Your task to perform on an android device: stop showing notifications on the lock screen Image 0: 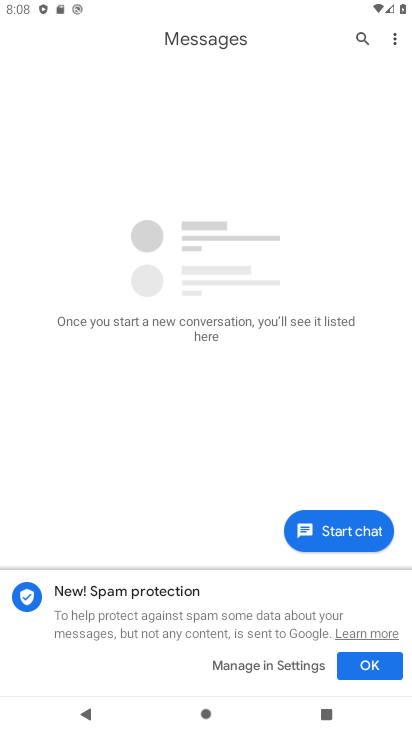
Step 0: press home button
Your task to perform on an android device: stop showing notifications on the lock screen Image 1: 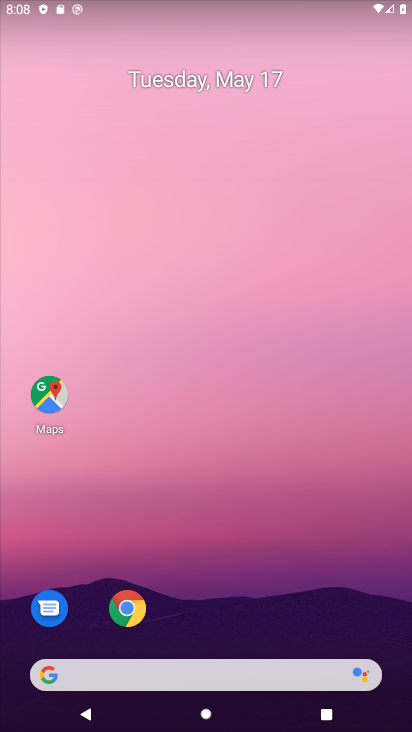
Step 1: drag from (318, 604) to (323, 144)
Your task to perform on an android device: stop showing notifications on the lock screen Image 2: 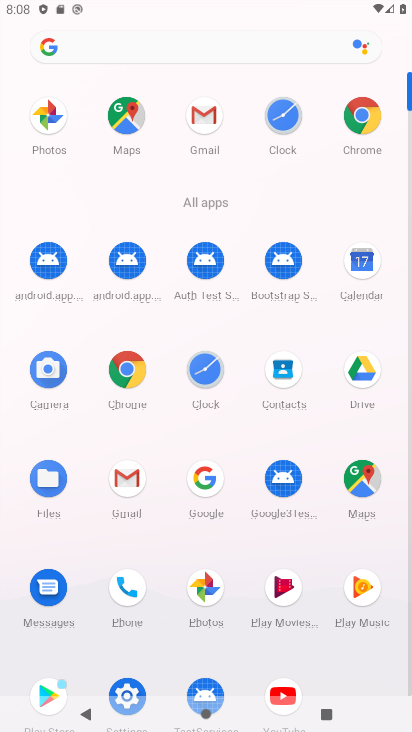
Step 2: drag from (166, 573) to (171, 355)
Your task to perform on an android device: stop showing notifications on the lock screen Image 3: 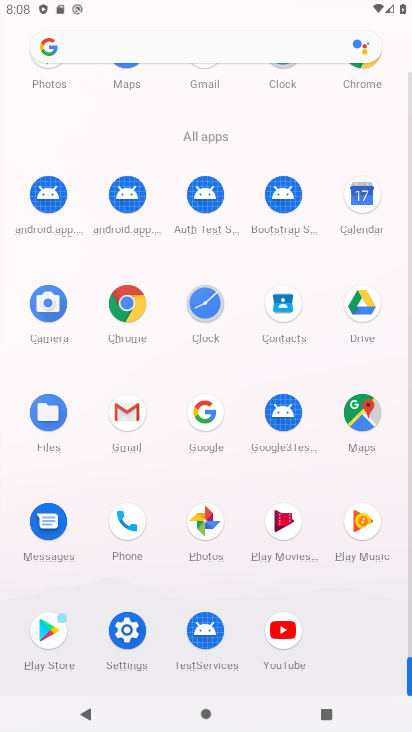
Step 3: click (132, 638)
Your task to perform on an android device: stop showing notifications on the lock screen Image 4: 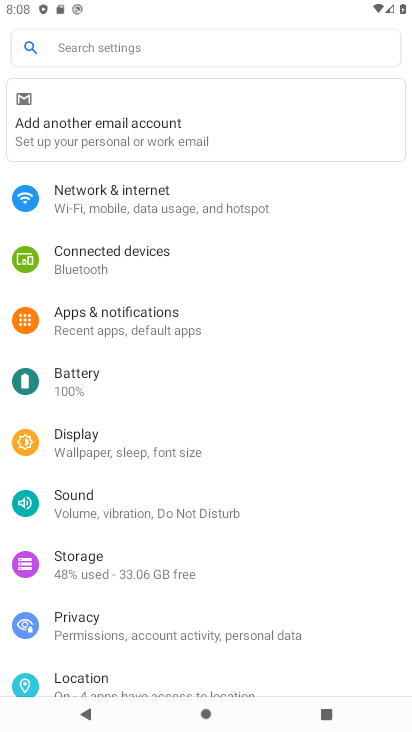
Step 4: drag from (307, 546) to (318, 429)
Your task to perform on an android device: stop showing notifications on the lock screen Image 5: 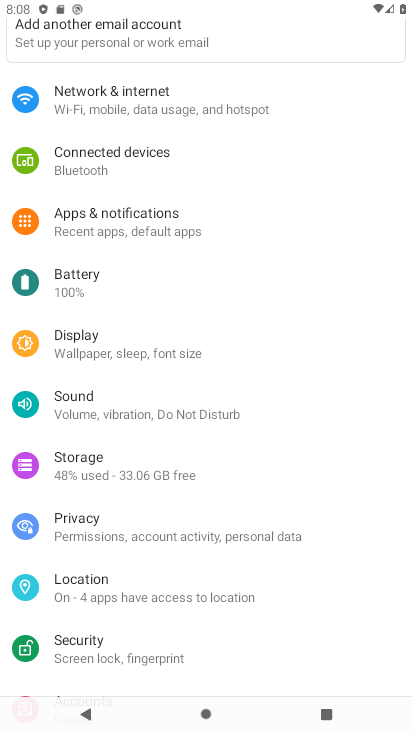
Step 5: drag from (314, 602) to (318, 472)
Your task to perform on an android device: stop showing notifications on the lock screen Image 6: 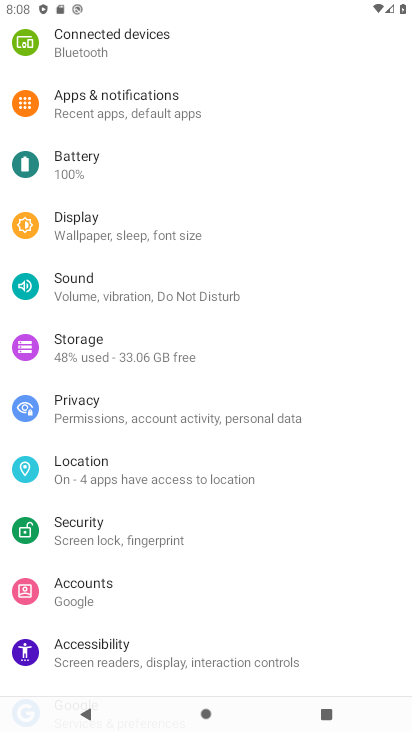
Step 6: drag from (321, 576) to (324, 451)
Your task to perform on an android device: stop showing notifications on the lock screen Image 7: 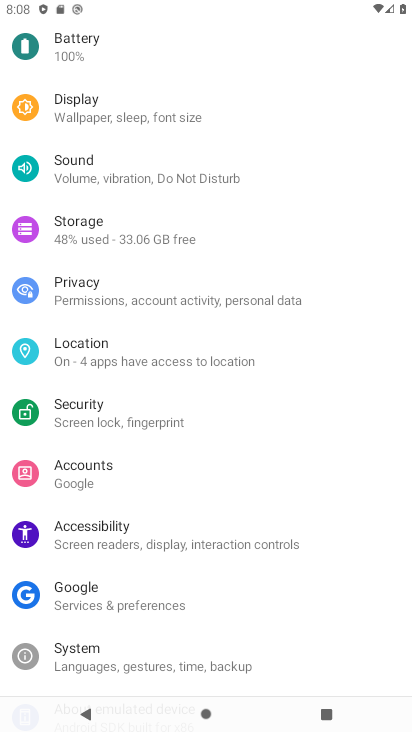
Step 7: drag from (320, 602) to (327, 446)
Your task to perform on an android device: stop showing notifications on the lock screen Image 8: 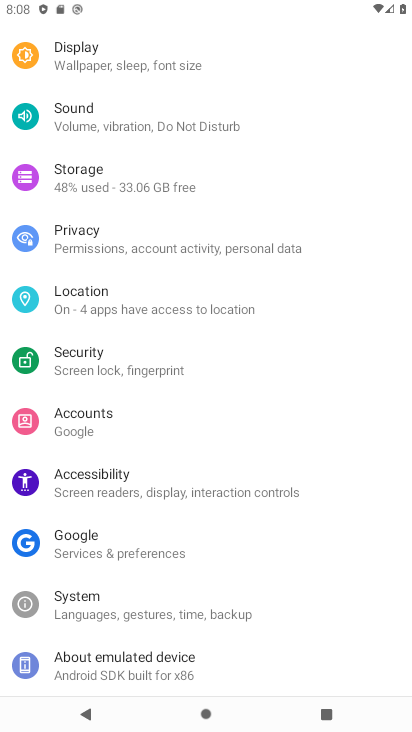
Step 8: drag from (328, 596) to (339, 453)
Your task to perform on an android device: stop showing notifications on the lock screen Image 9: 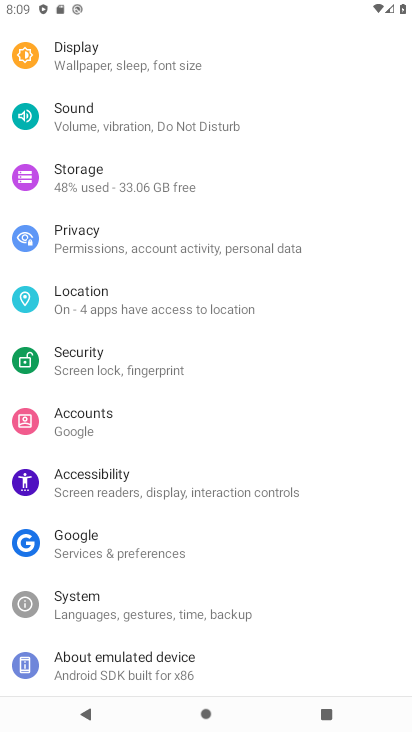
Step 9: drag from (349, 604) to (363, 440)
Your task to perform on an android device: stop showing notifications on the lock screen Image 10: 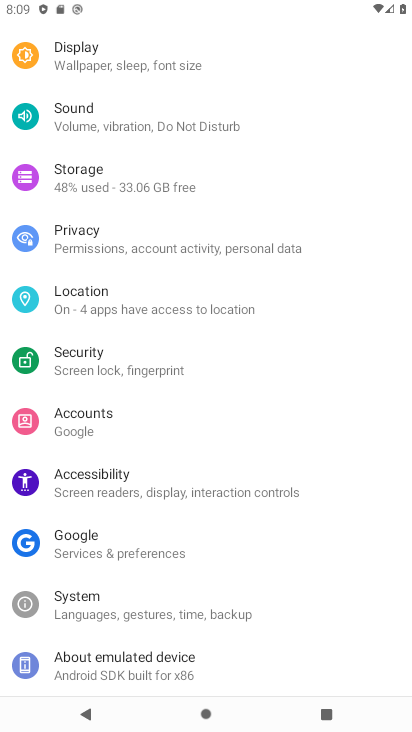
Step 10: drag from (356, 191) to (330, 362)
Your task to perform on an android device: stop showing notifications on the lock screen Image 11: 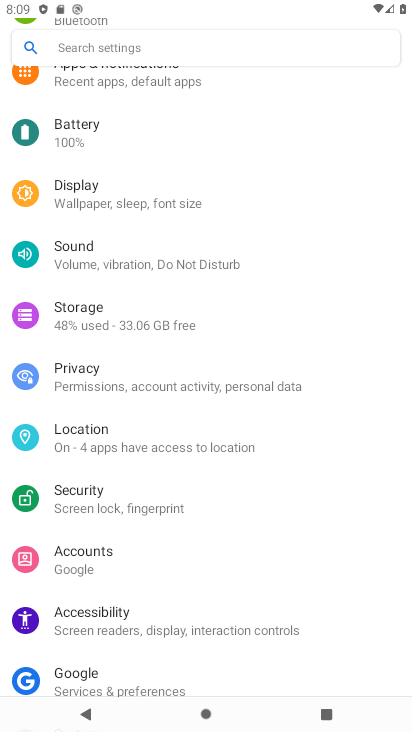
Step 11: drag from (347, 222) to (352, 403)
Your task to perform on an android device: stop showing notifications on the lock screen Image 12: 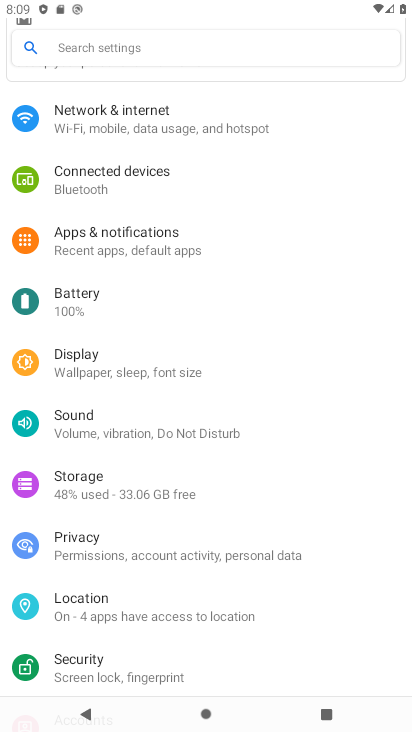
Step 12: drag from (343, 225) to (337, 392)
Your task to perform on an android device: stop showing notifications on the lock screen Image 13: 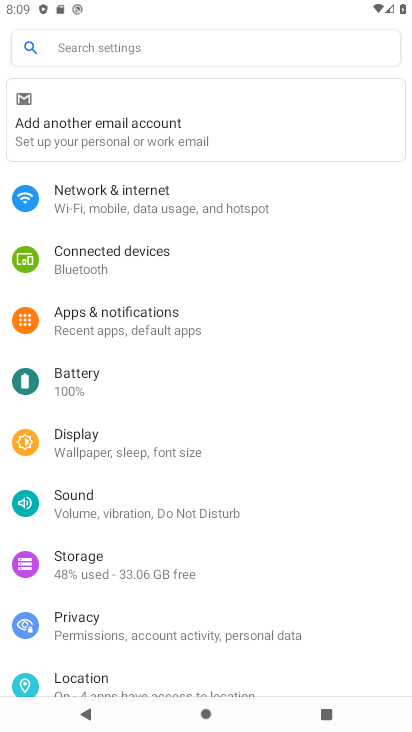
Step 13: drag from (319, 251) to (313, 388)
Your task to perform on an android device: stop showing notifications on the lock screen Image 14: 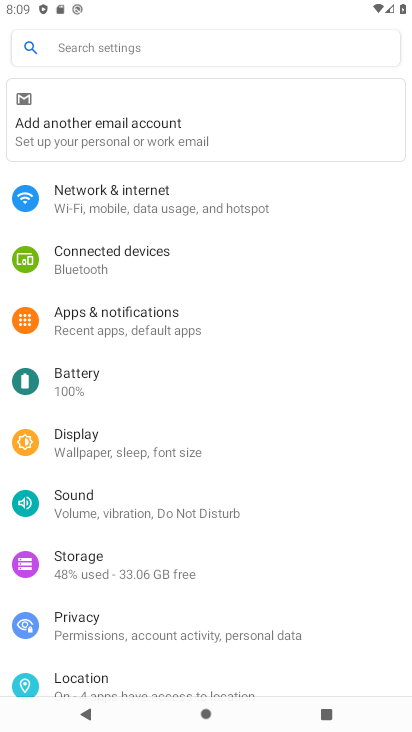
Step 14: click (174, 332)
Your task to perform on an android device: stop showing notifications on the lock screen Image 15: 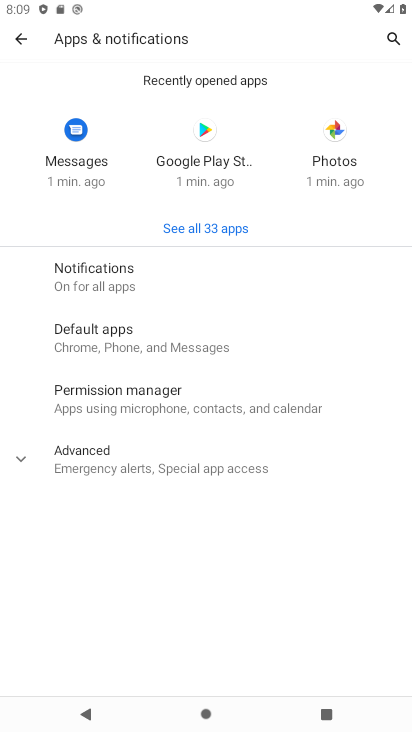
Step 15: click (109, 284)
Your task to perform on an android device: stop showing notifications on the lock screen Image 16: 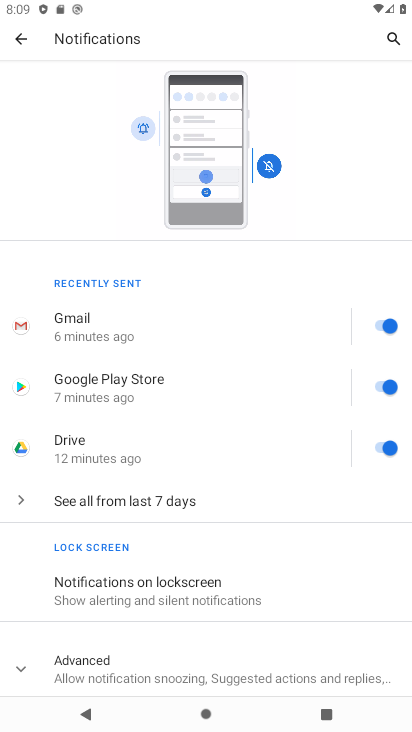
Step 16: drag from (252, 620) to (258, 454)
Your task to perform on an android device: stop showing notifications on the lock screen Image 17: 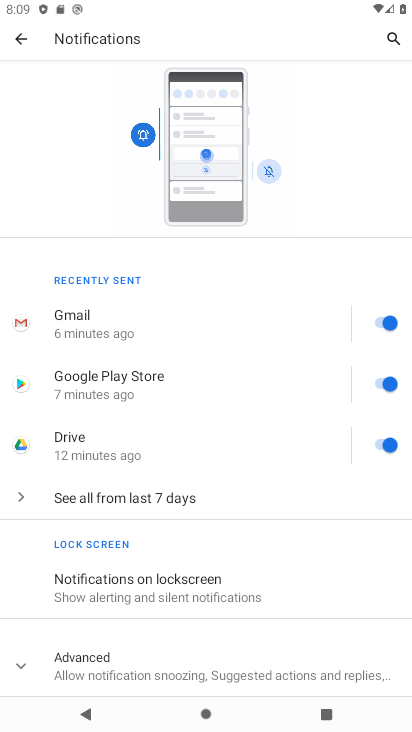
Step 17: click (190, 599)
Your task to perform on an android device: stop showing notifications on the lock screen Image 18: 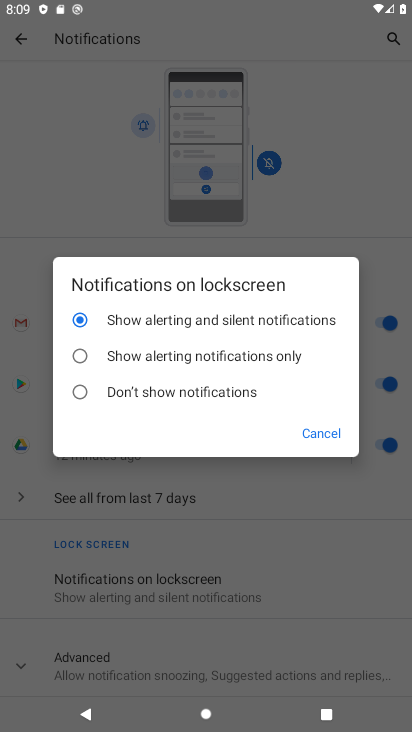
Step 18: click (131, 390)
Your task to perform on an android device: stop showing notifications on the lock screen Image 19: 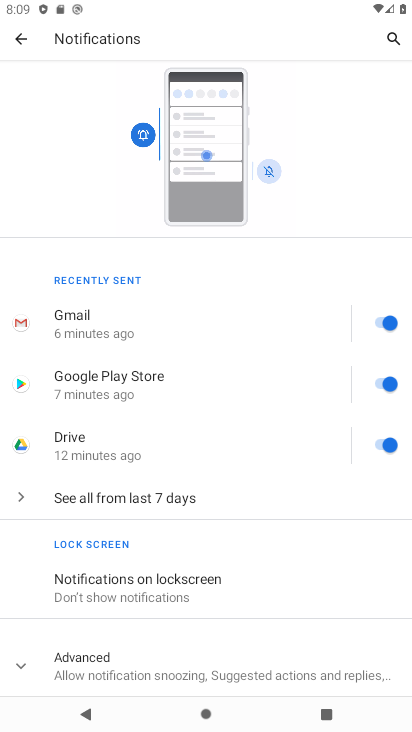
Step 19: task complete